Your task to perform on an android device: Do I have any events today? Image 0: 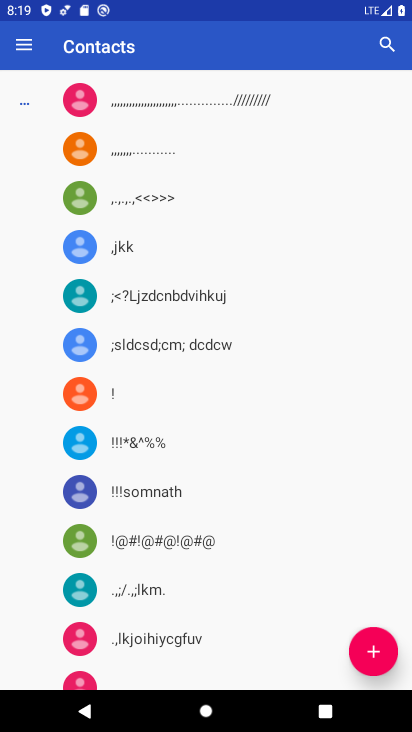
Step 0: press back button
Your task to perform on an android device: Do I have any events today? Image 1: 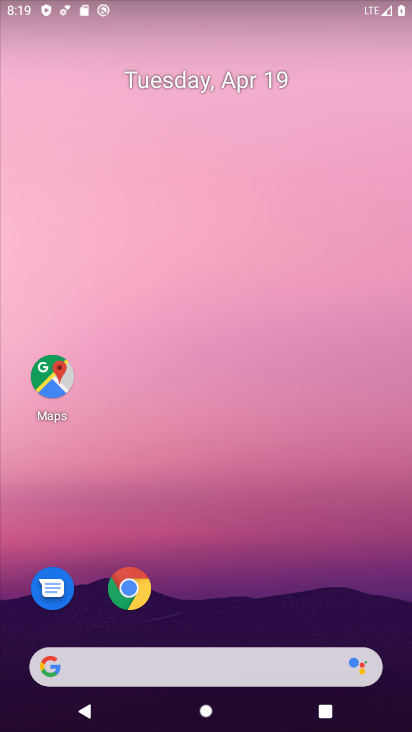
Step 1: drag from (273, 579) to (250, 174)
Your task to perform on an android device: Do I have any events today? Image 2: 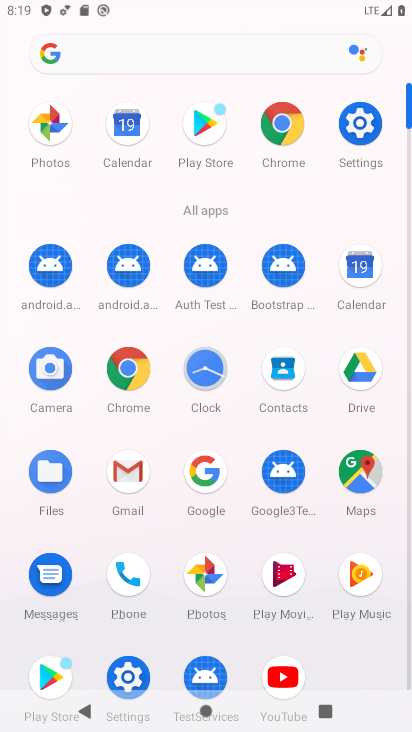
Step 2: click (344, 292)
Your task to perform on an android device: Do I have any events today? Image 3: 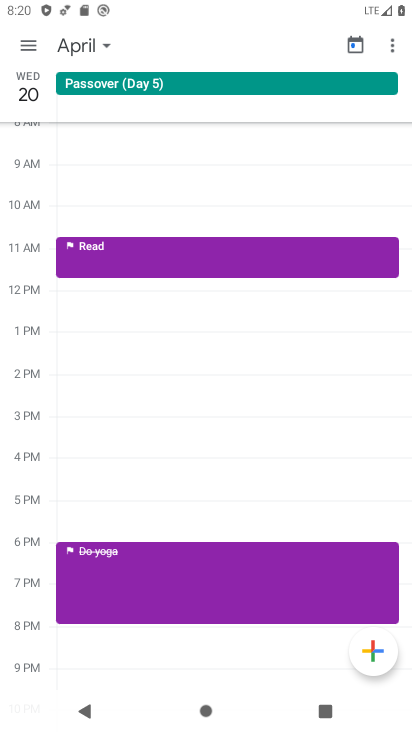
Step 3: click (25, 94)
Your task to perform on an android device: Do I have any events today? Image 4: 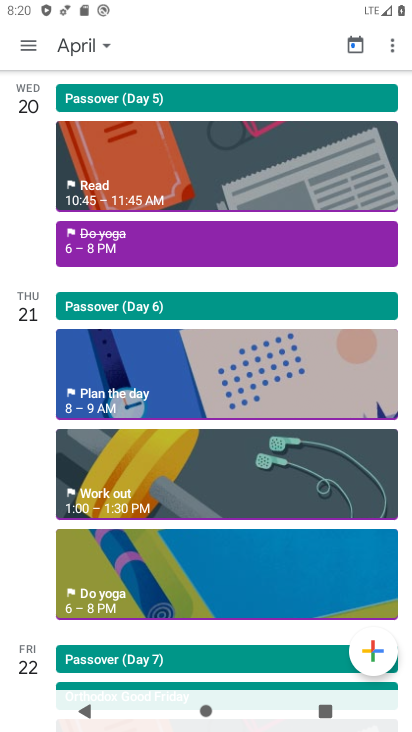
Step 4: task complete